Your task to perform on an android device: Open Android settings Image 0: 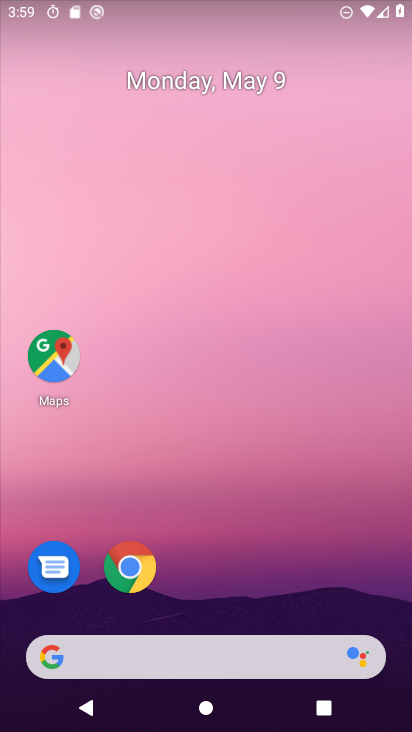
Step 0: drag from (236, 419) to (222, 90)
Your task to perform on an android device: Open Android settings Image 1: 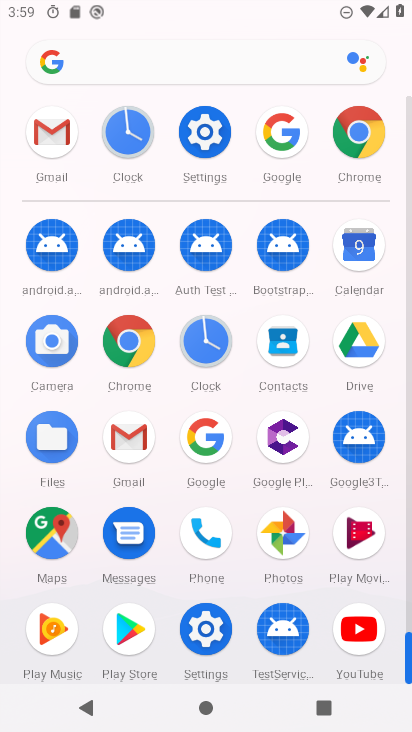
Step 1: click (204, 136)
Your task to perform on an android device: Open Android settings Image 2: 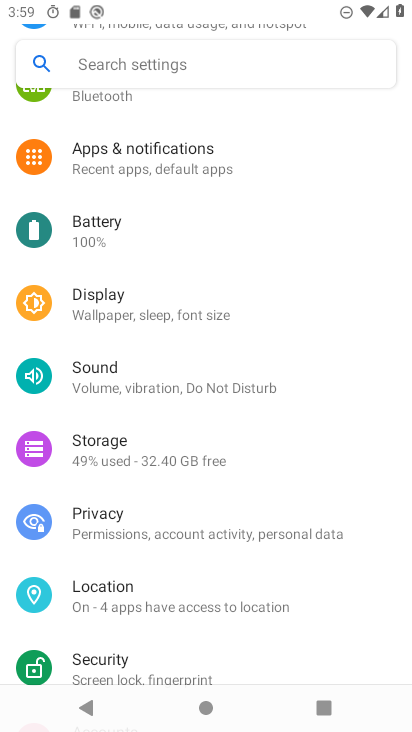
Step 2: drag from (307, 638) to (251, 108)
Your task to perform on an android device: Open Android settings Image 3: 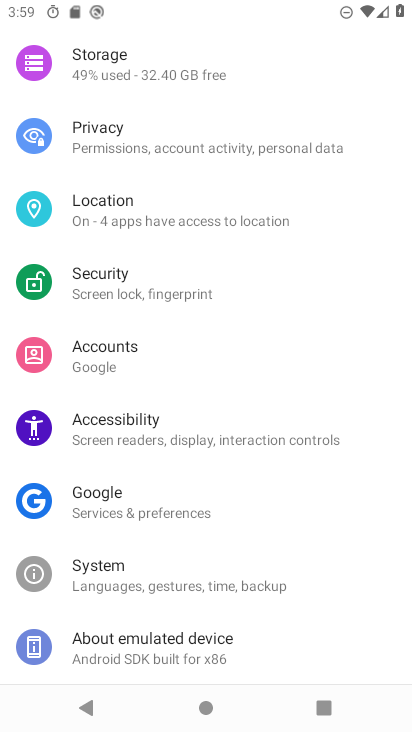
Step 3: click (211, 636)
Your task to perform on an android device: Open Android settings Image 4: 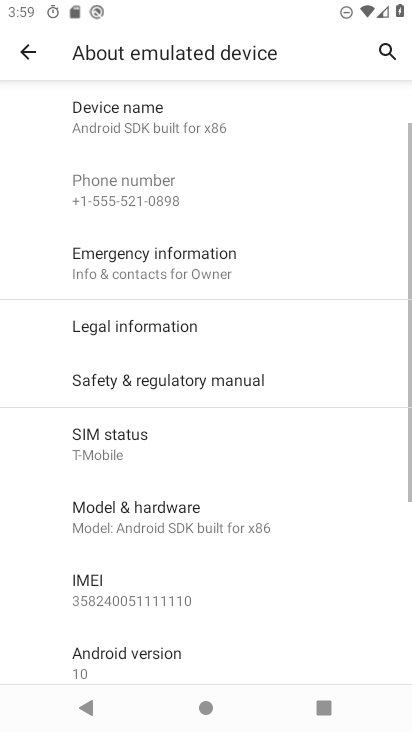
Step 4: click (143, 653)
Your task to perform on an android device: Open Android settings Image 5: 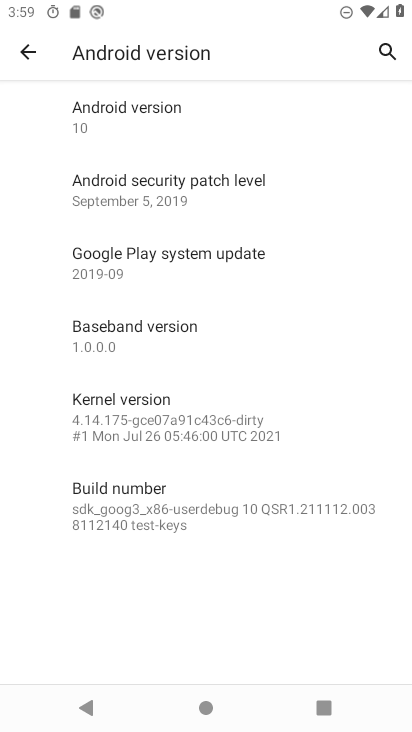
Step 5: task complete